Your task to perform on an android device: move an email to a new category in the gmail app Image 0: 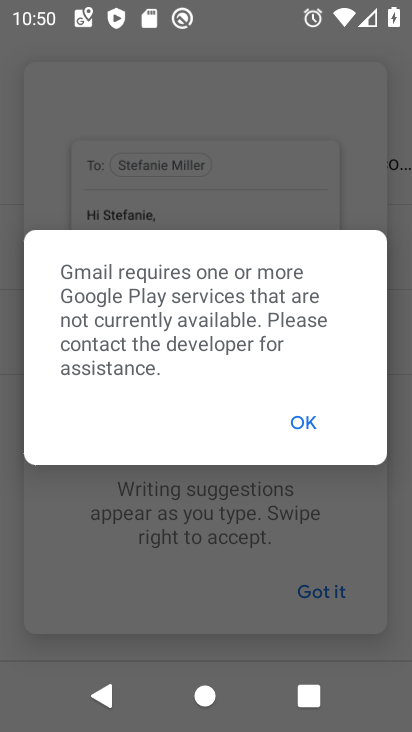
Step 0: press home button
Your task to perform on an android device: move an email to a new category in the gmail app Image 1: 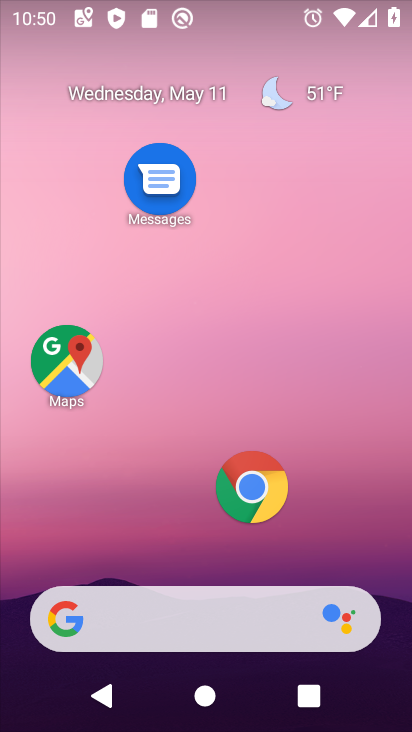
Step 1: drag from (183, 553) to (189, 222)
Your task to perform on an android device: move an email to a new category in the gmail app Image 2: 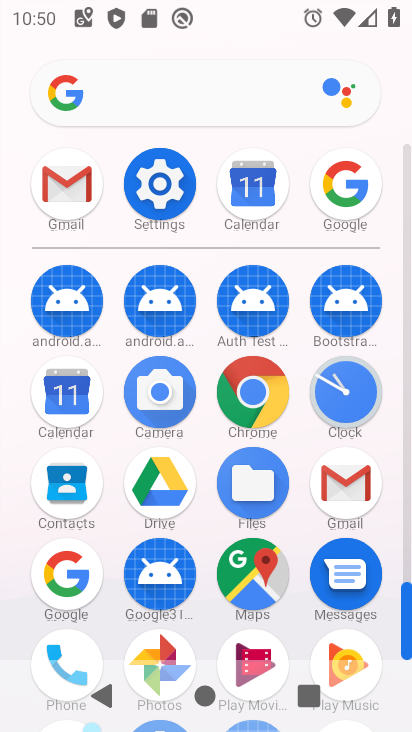
Step 2: click (92, 207)
Your task to perform on an android device: move an email to a new category in the gmail app Image 3: 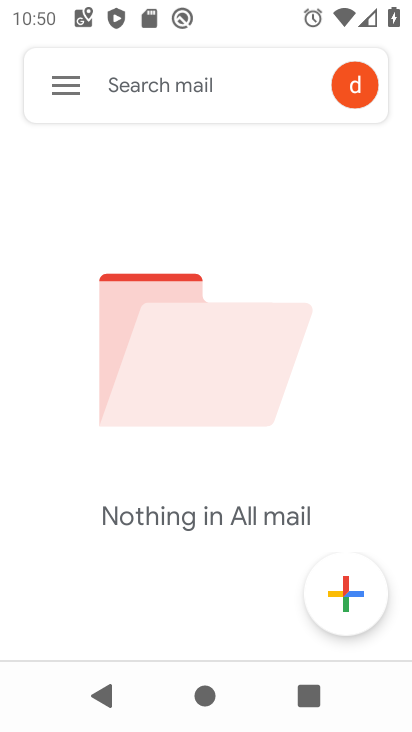
Step 3: click (64, 82)
Your task to perform on an android device: move an email to a new category in the gmail app Image 4: 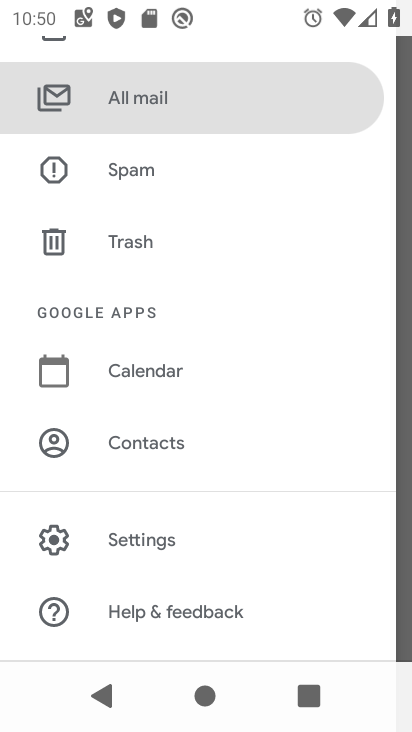
Step 4: click (164, 101)
Your task to perform on an android device: move an email to a new category in the gmail app Image 5: 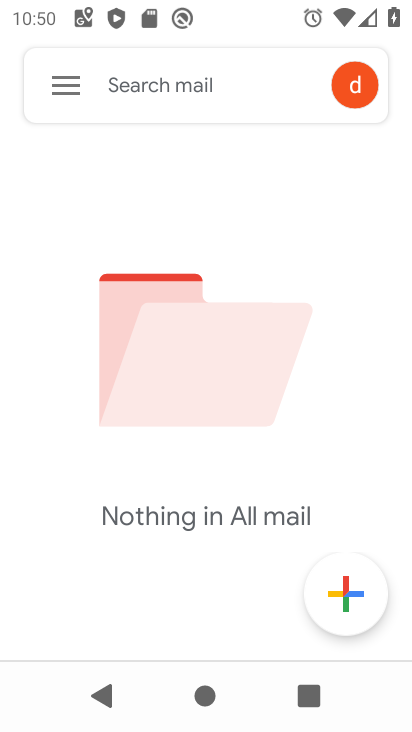
Step 5: task complete